Your task to perform on an android device: Open Wikipedia Image 0: 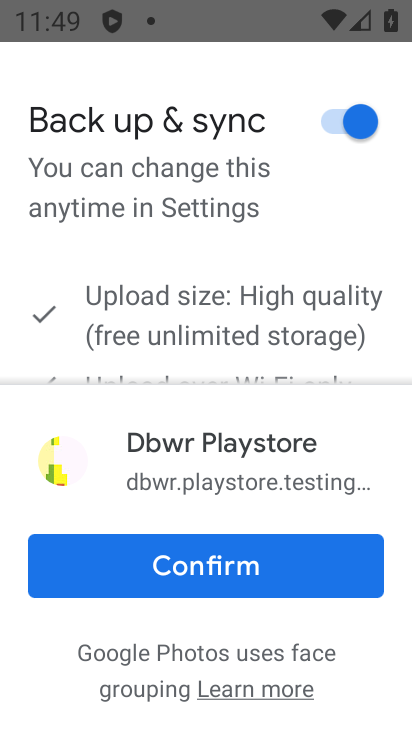
Step 0: press home button
Your task to perform on an android device: Open Wikipedia Image 1: 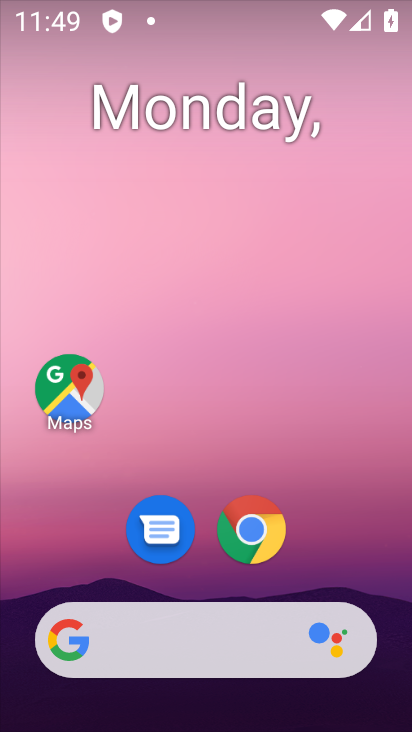
Step 1: click (241, 544)
Your task to perform on an android device: Open Wikipedia Image 2: 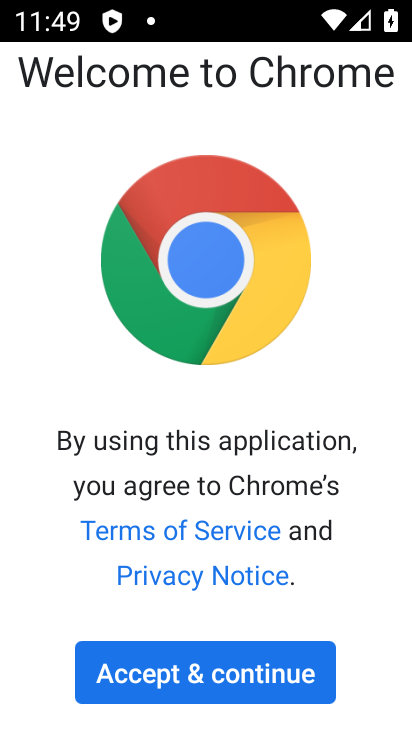
Step 2: click (201, 640)
Your task to perform on an android device: Open Wikipedia Image 3: 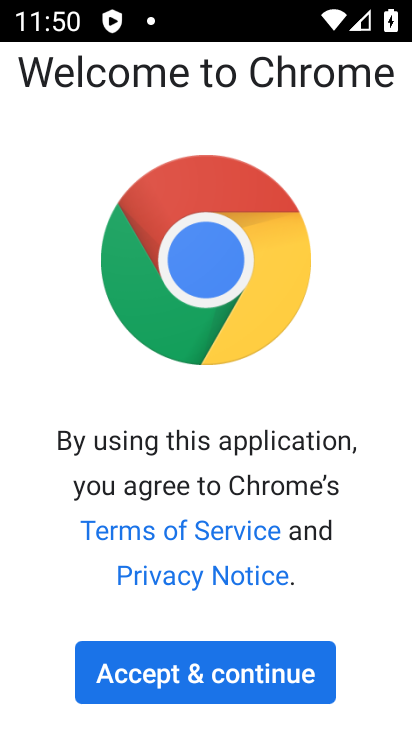
Step 3: click (208, 665)
Your task to perform on an android device: Open Wikipedia Image 4: 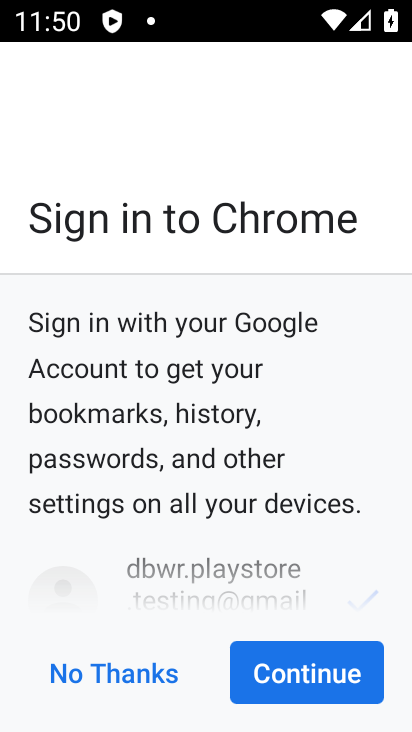
Step 4: click (356, 676)
Your task to perform on an android device: Open Wikipedia Image 5: 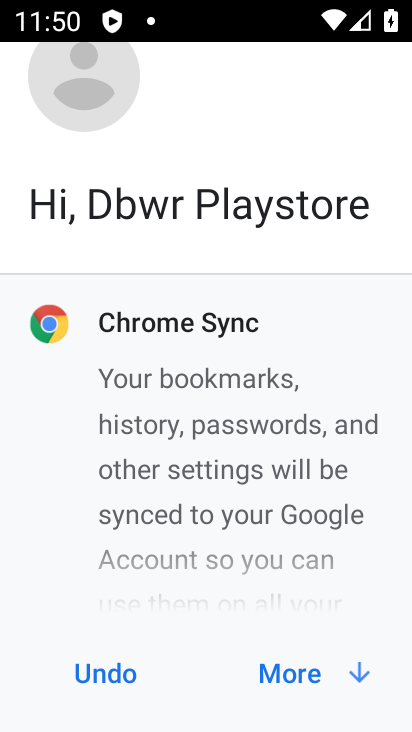
Step 5: click (356, 676)
Your task to perform on an android device: Open Wikipedia Image 6: 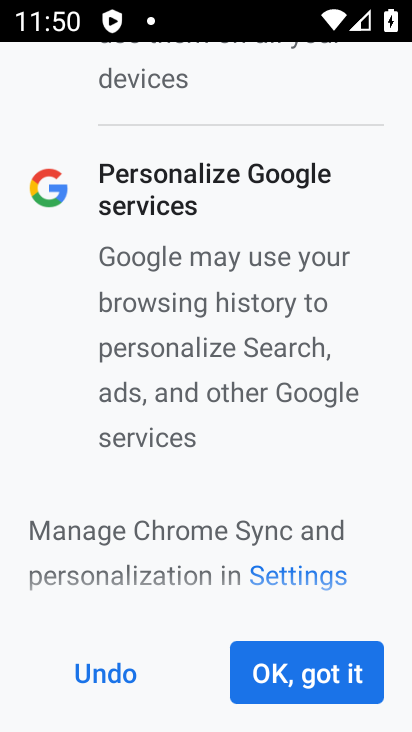
Step 6: click (356, 676)
Your task to perform on an android device: Open Wikipedia Image 7: 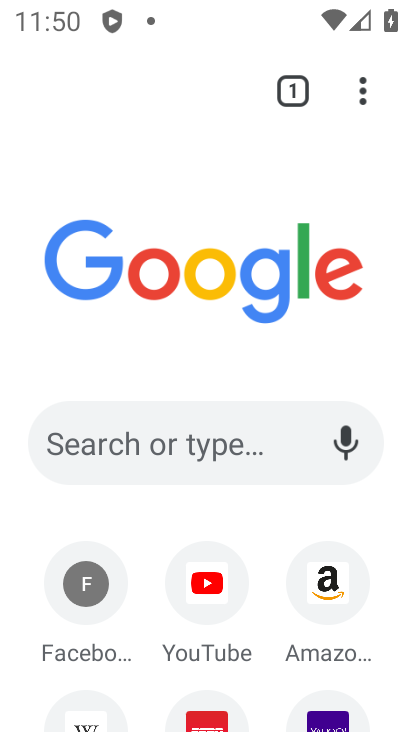
Step 7: drag from (237, 673) to (332, 482)
Your task to perform on an android device: Open Wikipedia Image 8: 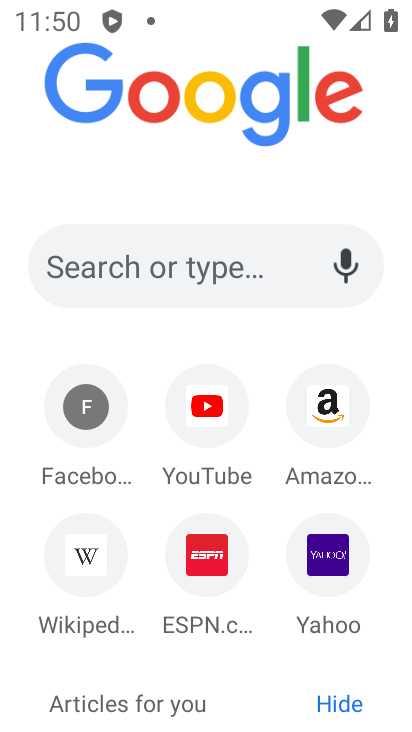
Step 8: click (95, 560)
Your task to perform on an android device: Open Wikipedia Image 9: 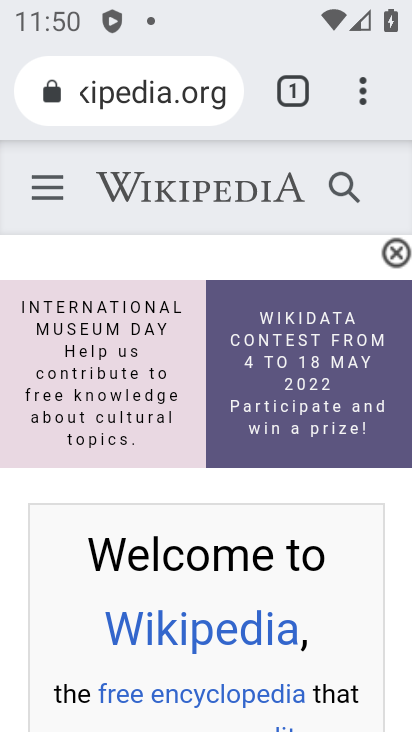
Step 9: task complete